Your task to perform on an android device: delete the emails in spam in the gmail app Image 0: 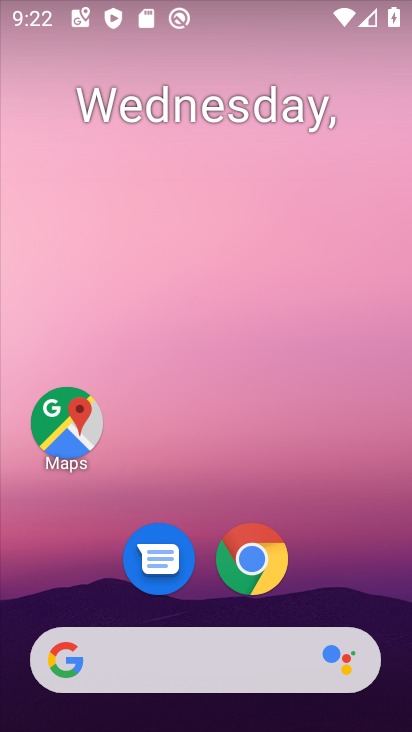
Step 0: drag from (323, 601) to (249, 155)
Your task to perform on an android device: delete the emails in spam in the gmail app Image 1: 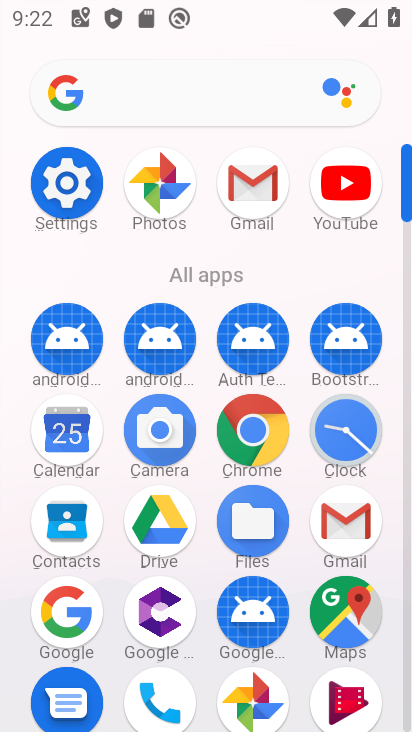
Step 1: click (351, 523)
Your task to perform on an android device: delete the emails in spam in the gmail app Image 2: 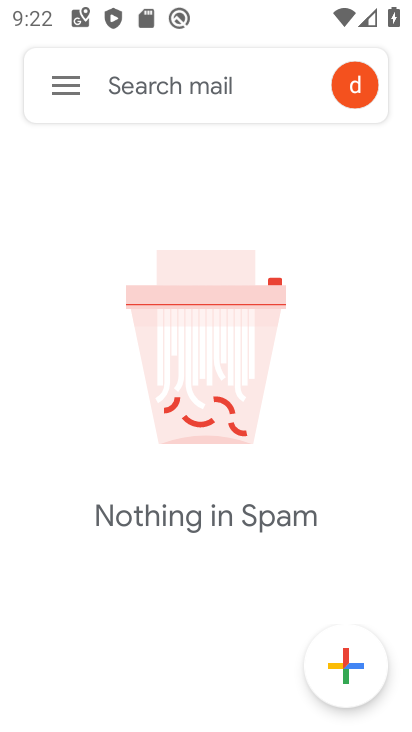
Step 2: task complete